Your task to perform on an android device: turn on notifications settings in the gmail app Image 0: 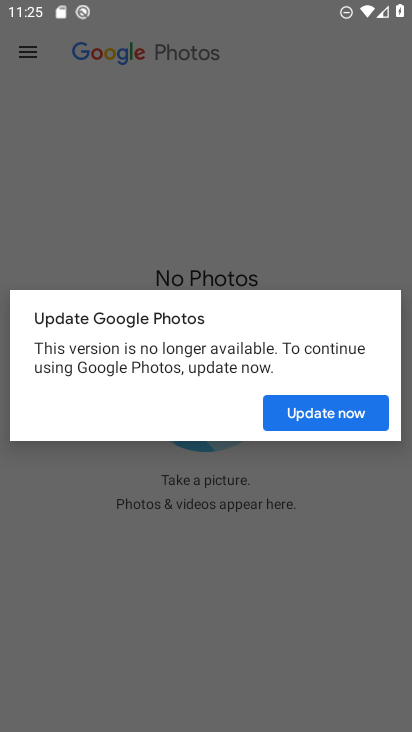
Step 0: press home button
Your task to perform on an android device: turn on notifications settings in the gmail app Image 1: 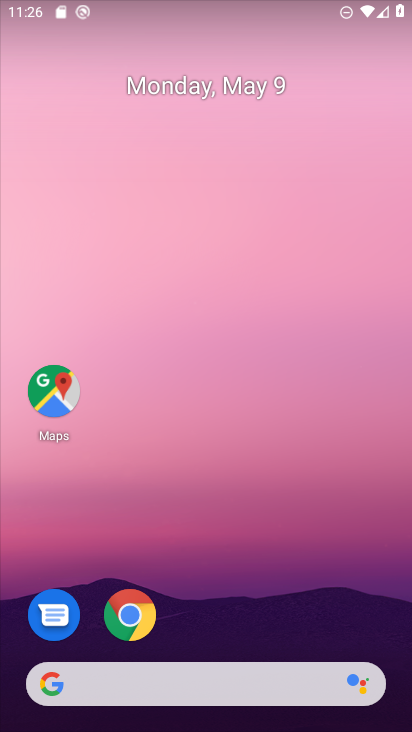
Step 1: drag from (304, 684) to (121, 163)
Your task to perform on an android device: turn on notifications settings in the gmail app Image 2: 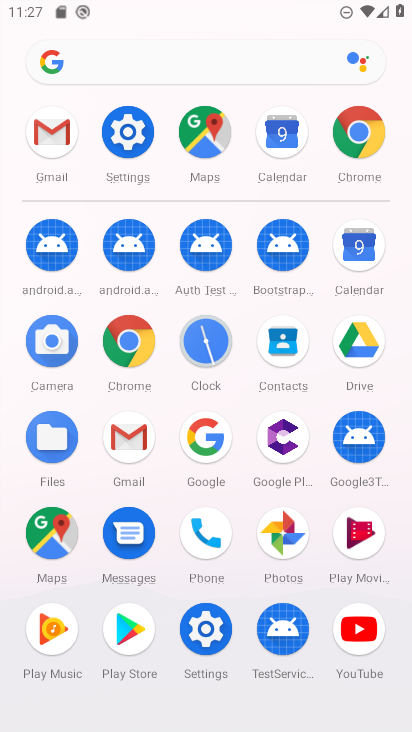
Step 2: click (53, 152)
Your task to perform on an android device: turn on notifications settings in the gmail app Image 3: 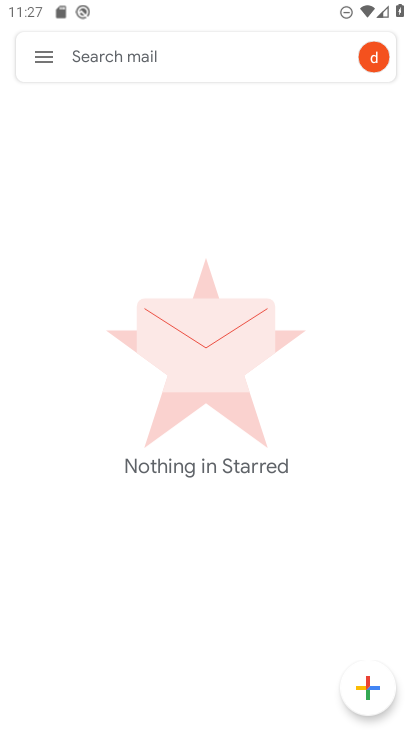
Step 3: click (35, 45)
Your task to perform on an android device: turn on notifications settings in the gmail app Image 4: 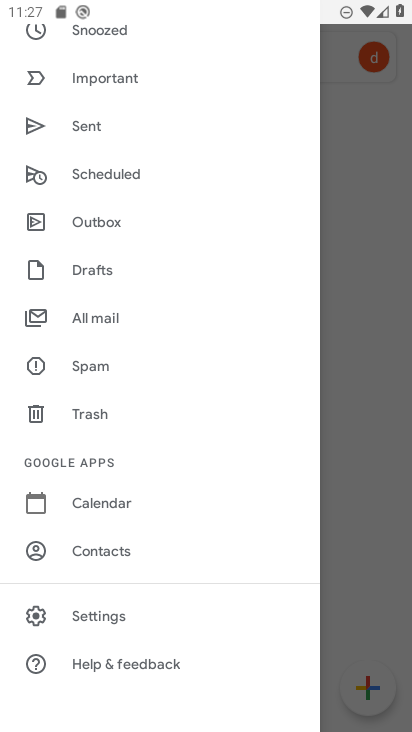
Step 4: click (105, 611)
Your task to perform on an android device: turn on notifications settings in the gmail app Image 5: 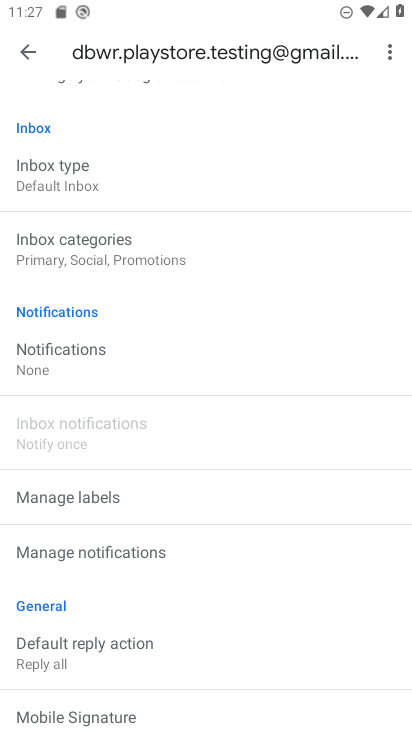
Step 5: click (47, 371)
Your task to perform on an android device: turn on notifications settings in the gmail app Image 6: 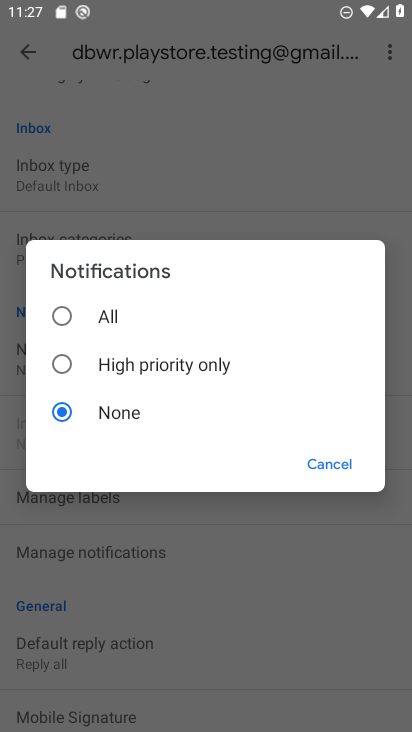
Step 6: click (99, 321)
Your task to perform on an android device: turn on notifications settings in the gmail app Image 7: 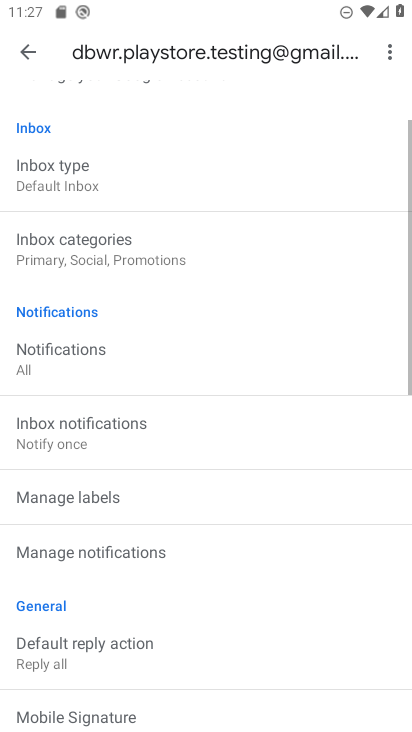
Step 7: task complete